Your task to perform on an android device: Search for Italian restaurants on Maps Image 0: 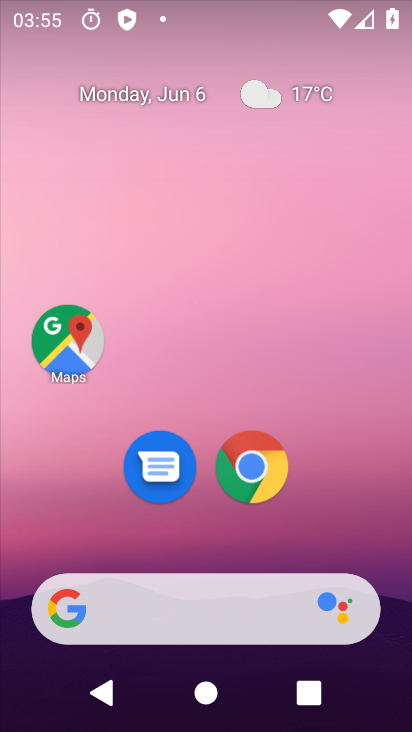
Step 0: press home button
Your task to perform on an android device: Search for Italian restaurants on Maps Image 1: 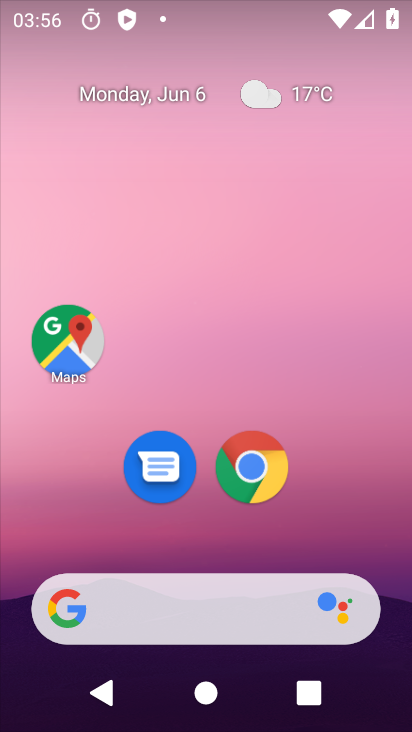
Step 1: click (68, 335)
Your task to perform on an android device: Search for Italian restaurants on Maps Image 2: 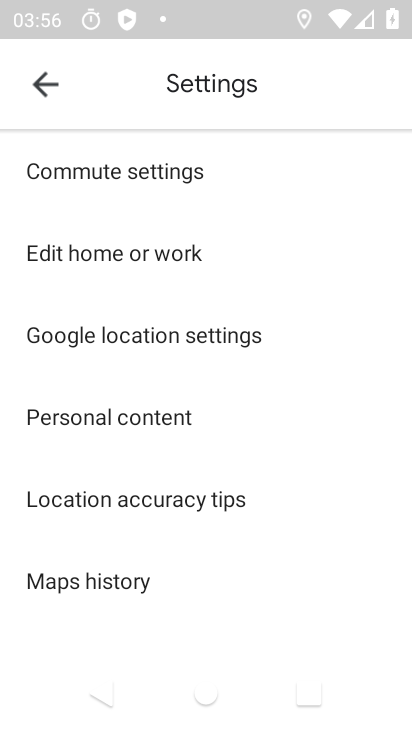
Step 2: click (50, 87)
Your task to perform on an android device: Search for Italian restaurants on Maps Image 3: 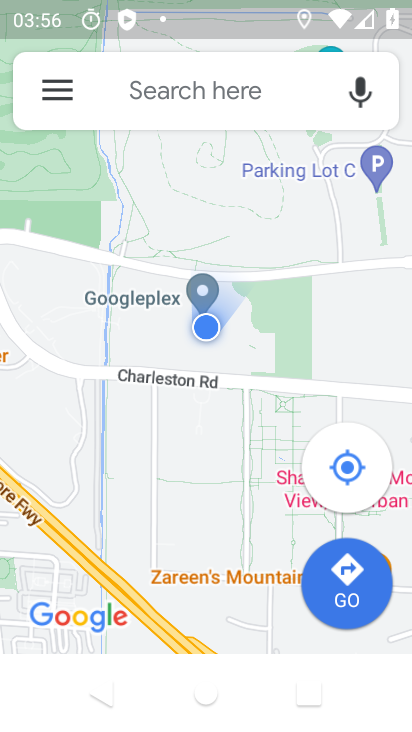
Step 3: click (200, 83)
Your task to perform on an android device: Search for Italian restaurants on Maps Image 4: 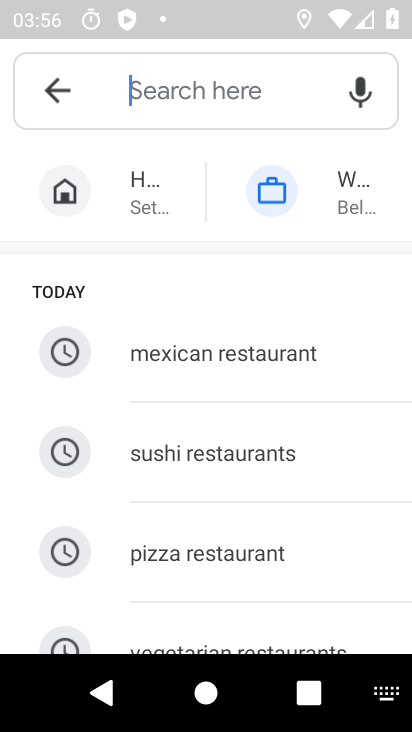
Step 4: drag from (239, 596) to (269, 257)
Your task to perform on an android device: Search for Italian restaurants on Maps Image 5: 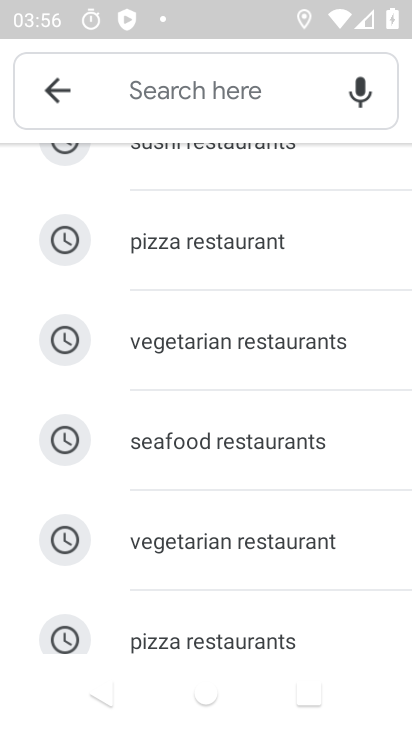
Step 5: drag from (229, 610) to (240, 229)
Your task to perform on an android device: Search for Italian restaurants on Maps Image 6: 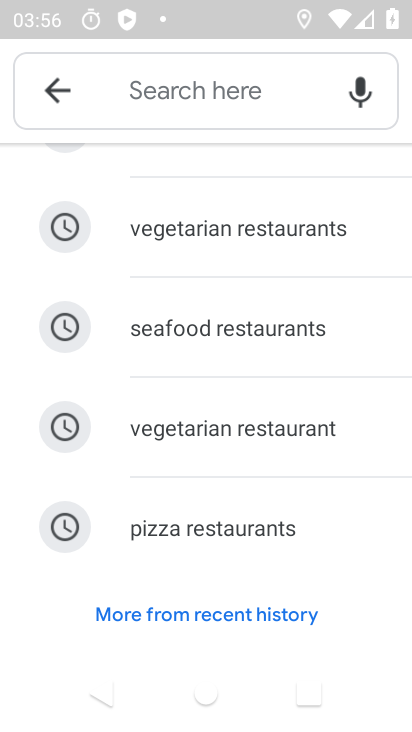
Step 6: drag from (222, 268) to (222, 655)
Your task to perform on an android device: Search for Italian restaurants on Maps Image 7: 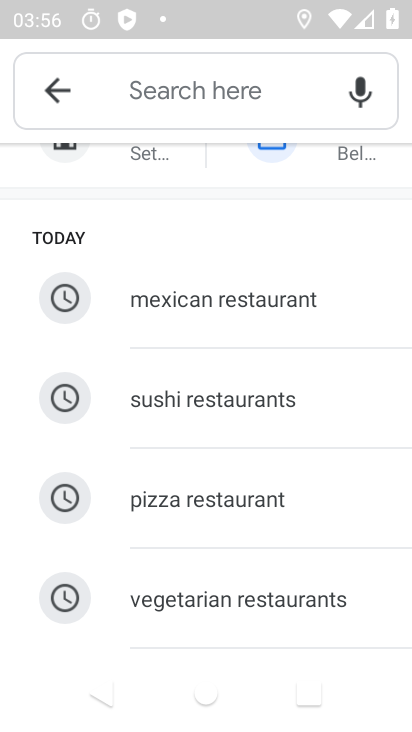
Step 7: click (163, 80)
Your task to perform on an android device: Search for Italian restaurants on Maps Image 8: 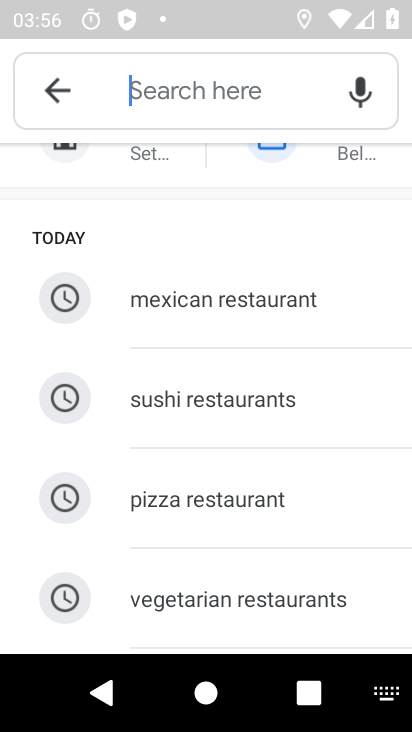
Step 8: type "italian"
Your task to perform on an android device: Search for Italian restaurants on Maps Image 9: 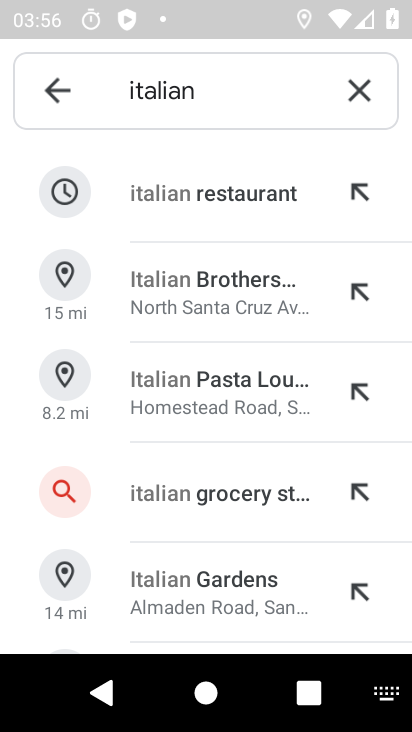
Step 9: click (224, 205)
Your task to perform on an android device: Search for Italian restaurants on Maps Image 10: 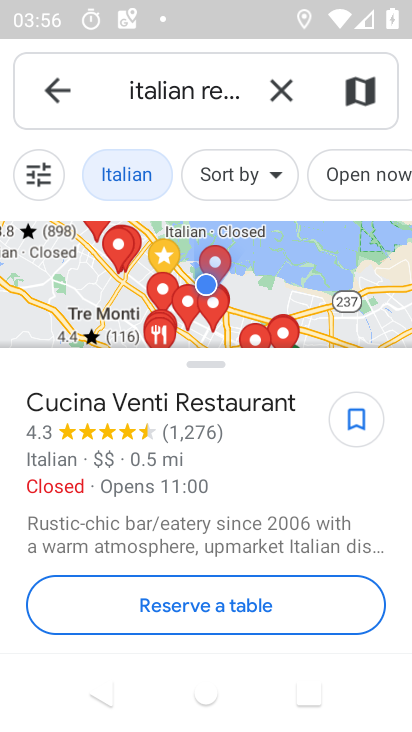
Step 10: task complete